Your task to perform on an android device: Go to wifi settings Image 0: 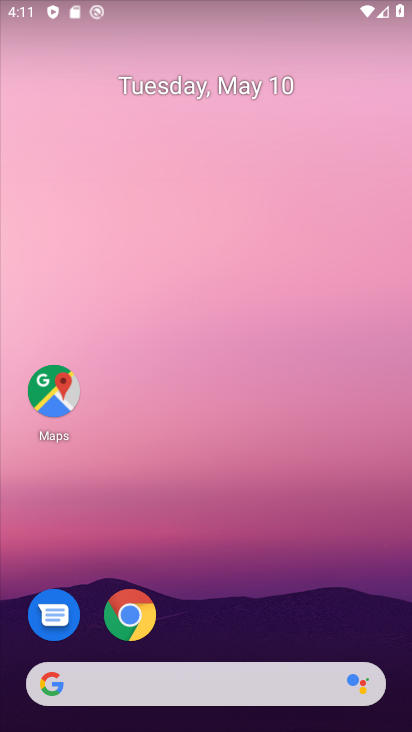
Step 0: drag from (225, 664) to (295, 251)
Your task to perform on an android device: Go to wifi settings Image 1: 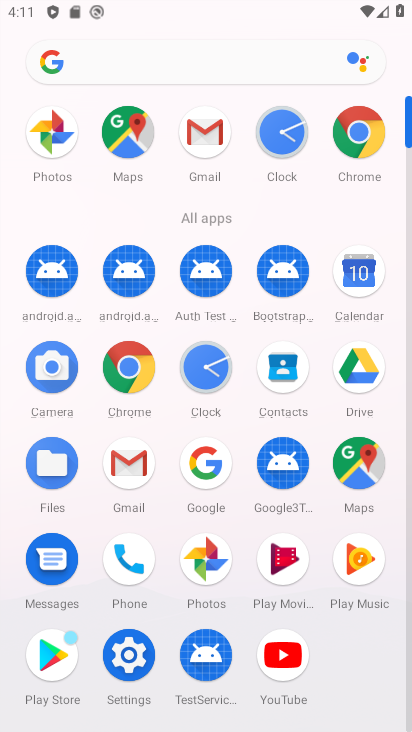
Step 1: click (138, 668)
Your task to perform on an android device: Go to wifi settings Image 2: 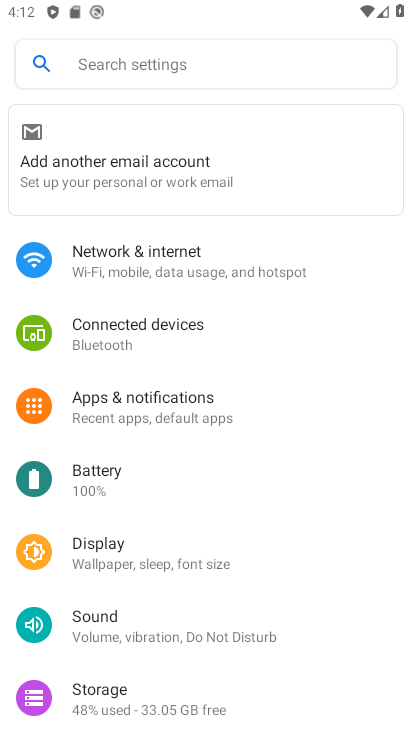
Step 2: click (225, 272)
Your task to perform on an android device: Go to wifi settings Image 3: 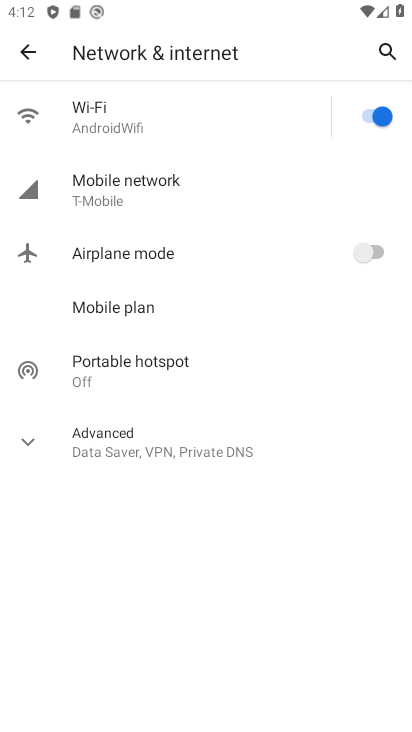
Step 3: click (159, 138)
Your task to perform on an android device: Go to wifi settings Image 4: 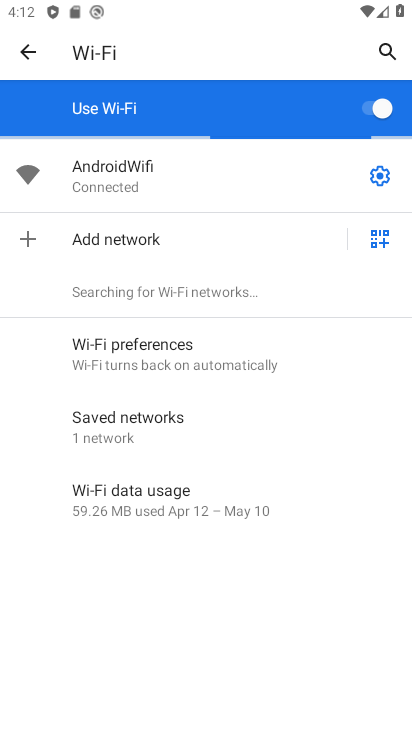
Step 4: task complete